Your task to perform on an android device: open app "Viber Messenger" (install if not already installed) and go to login screen Image 0: 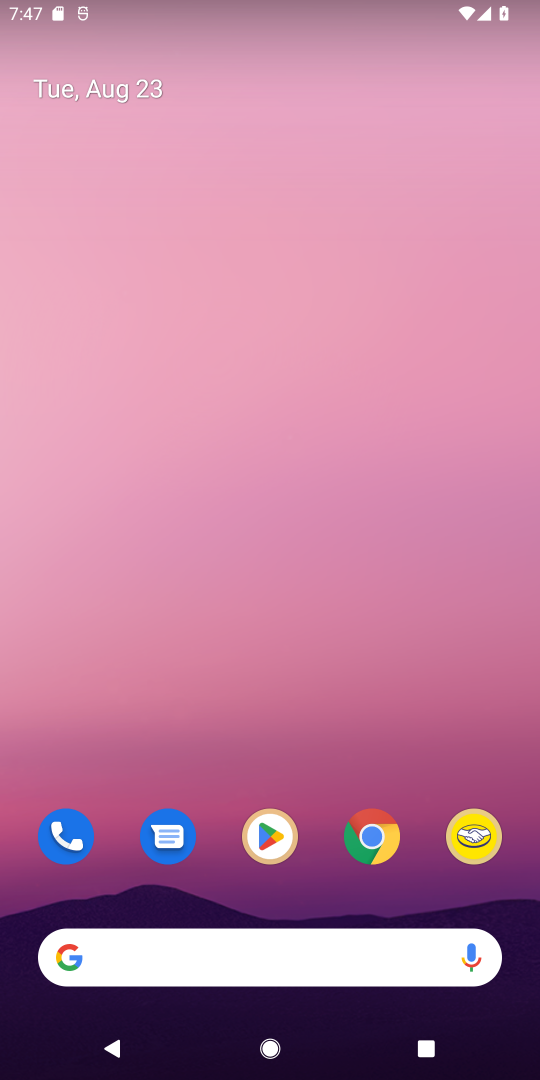
Step 0: click (255, 839)
Your task to perform on an android device: open app "Viber Messenger" (install if not already installed) and go to login screen Image 1: 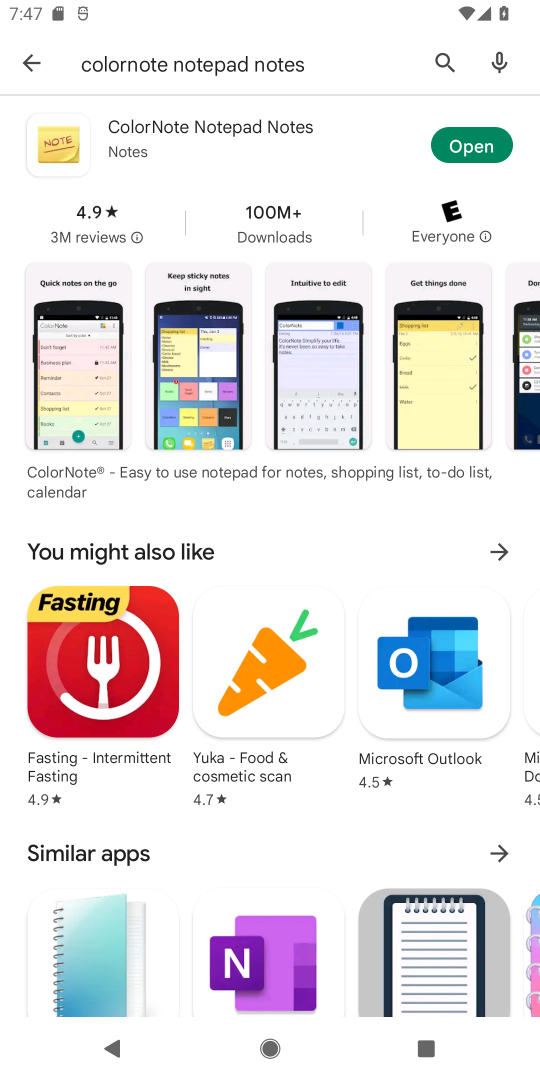
Step 1: click (440, 60)
Your task to perform on an android device: open app "Viber Messenger" (install if not already installed) and go to login screen Image 2: 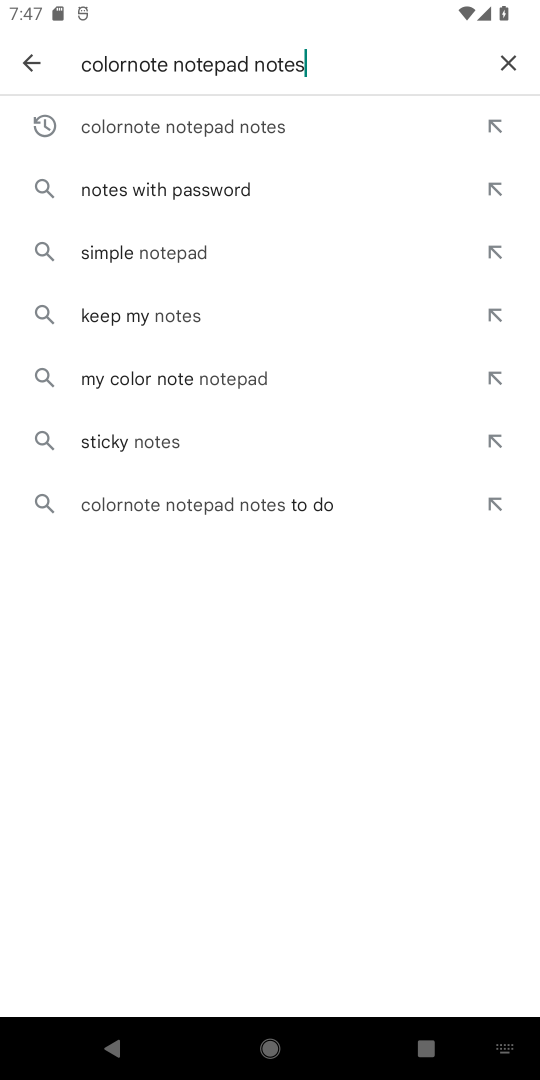
Step 2: click (499, 57)
Your task to perform on an android device: open app "Viber Messenger" (install if not already installed) and go to login screen Image 3: 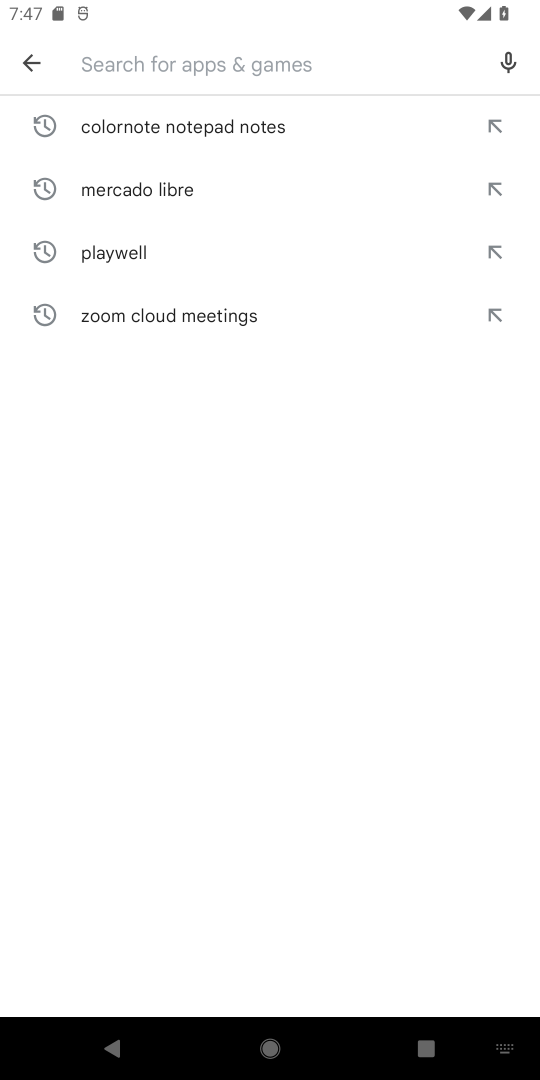
Step 3: type "Viber Messenger"
Your task to perform on an android device: open app "Viber Messenger" (install if not already installed) and go to login screen Image 4: 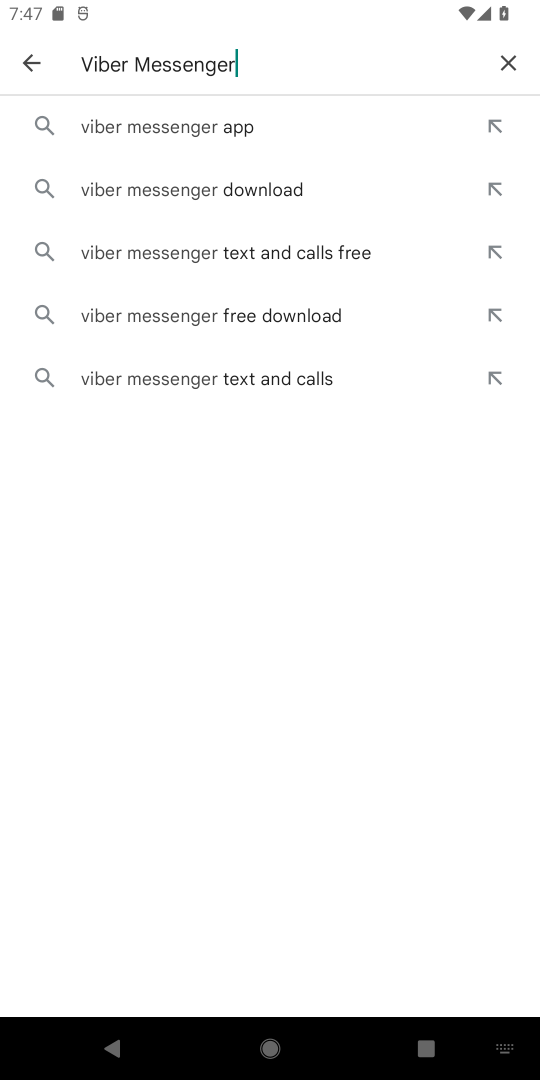
Step 4: click (157, 131)
Your task to perform on an android device: open app "Viber Messenger" (install if not already installed) and go to login screen Image 5: 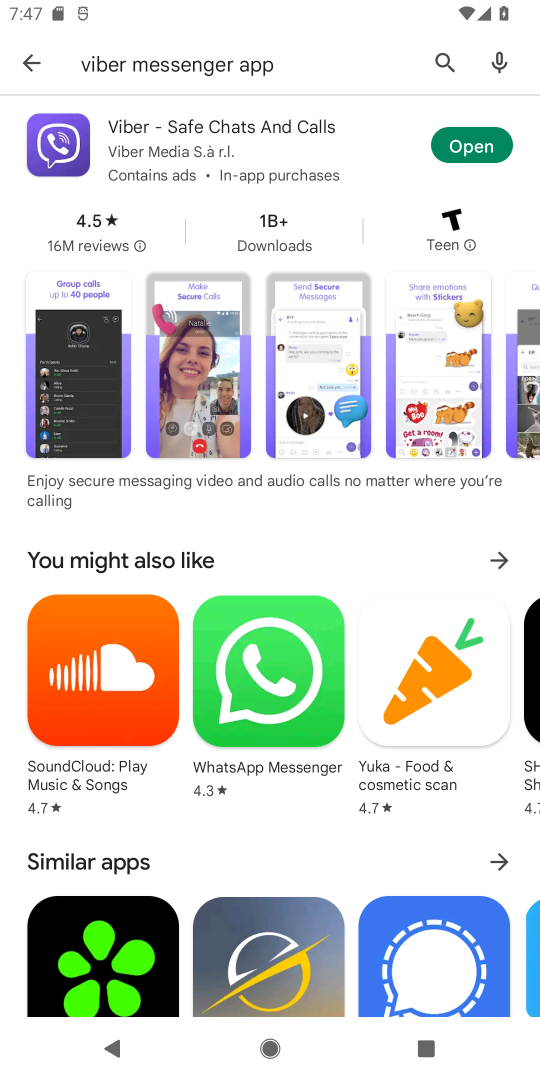
Step 5: click (465, 153)
Your task to perform on an android device: open app "Viber Messenger" (install if not already installed) and go to login screen Image 6: 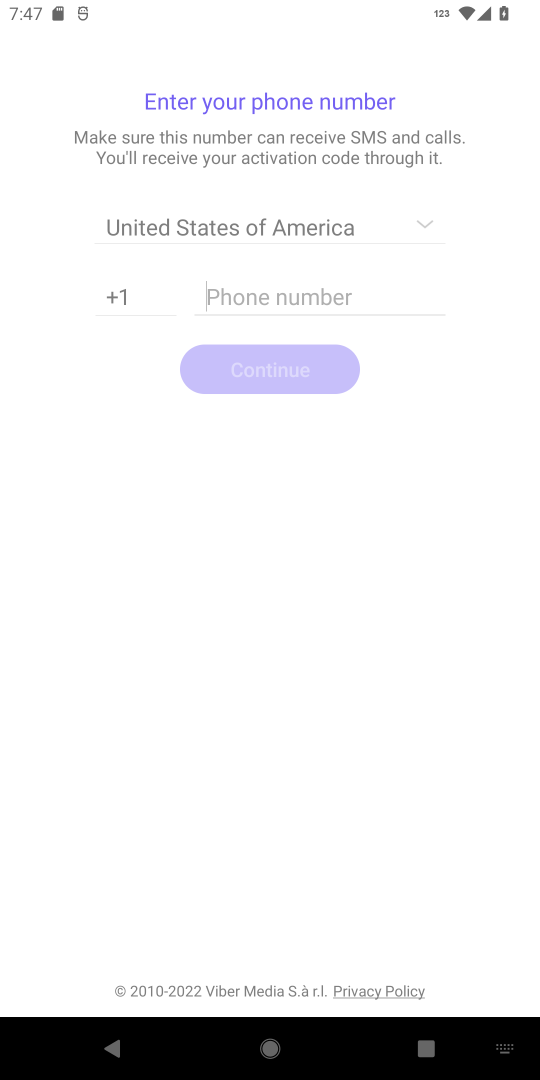
Step 6: task complete